Your task to perform on an android device: Do I have any events today? Image 0: 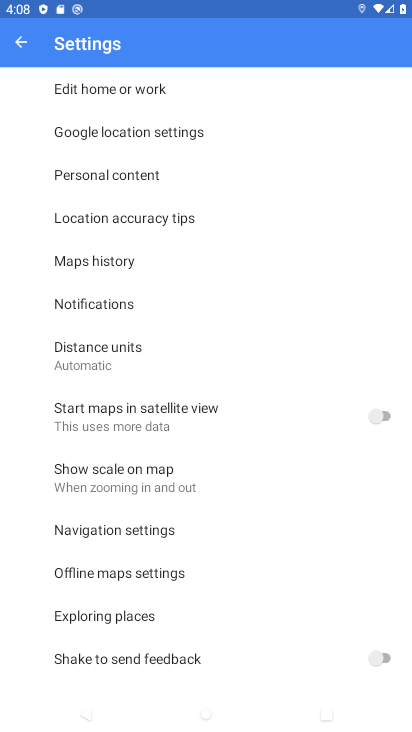
Step 0: press home button
Your task to perform on an android device: Do I have any events today? Image 1: 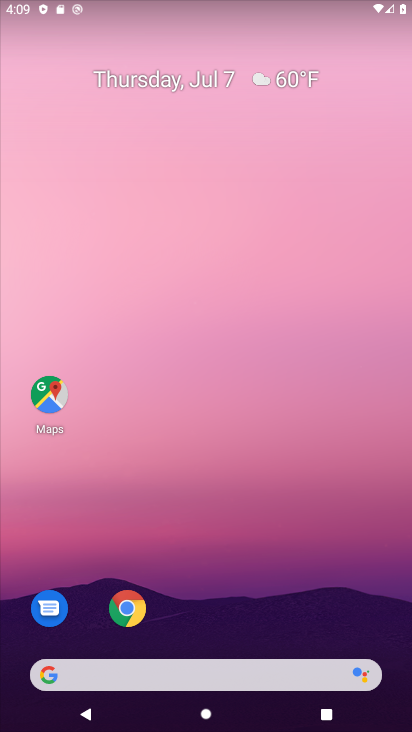
Step 1: drag from (292, 596) to (269, 306)
Your task to perform on an android device: Do I have any events today? Image 2: 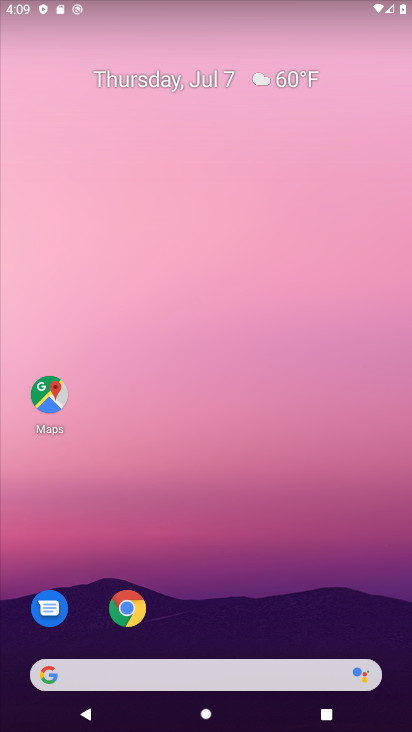
Step 2: drag from (309, 607) to (190, 22)
Your task to perform on an android device: Do I have any events today? Image 3: 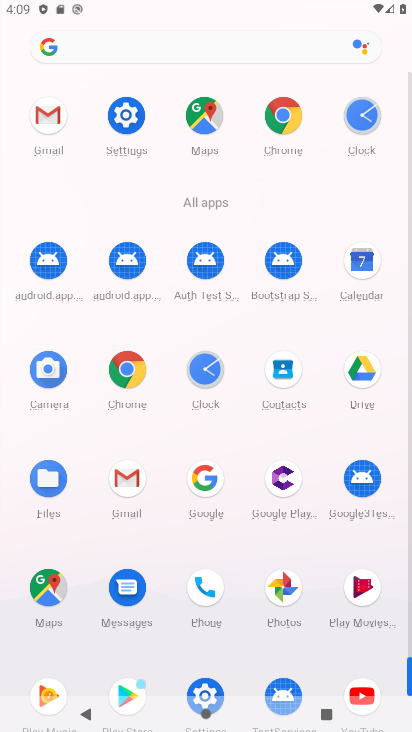
Step 3: click (377, 283)
Your task to perform on an android device: Do I have any events today? Image 4: 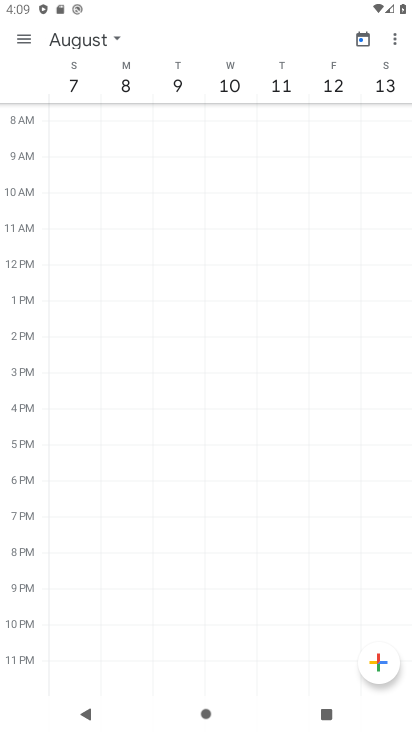
Step 4: drag from (271, 606) to (247, 307)
Your task to perform on an android device: Do I have any events today? Image 5: 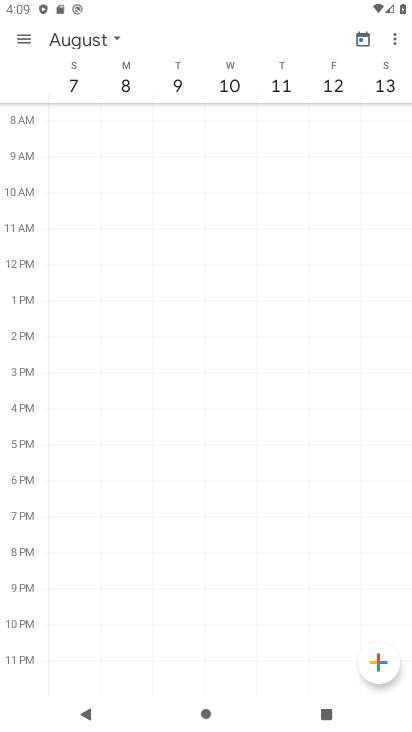
Step 5: click (24, 48)
Your task to perform on an android device: Do I have any events today? Image 6: 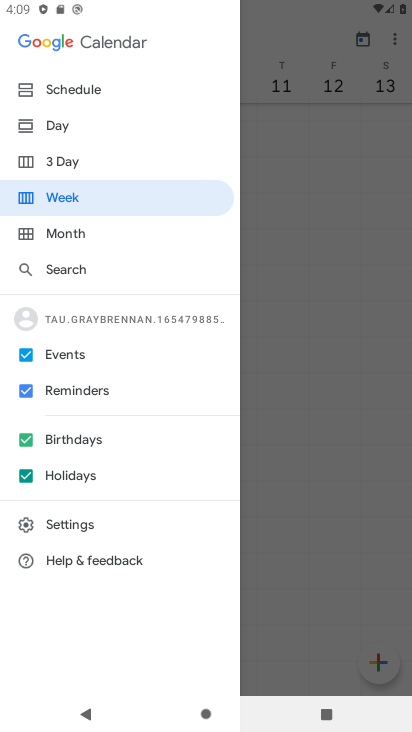
Step 6: click (99, 130)
Your task to perform on an android device: Do I have any events today? Image 7: 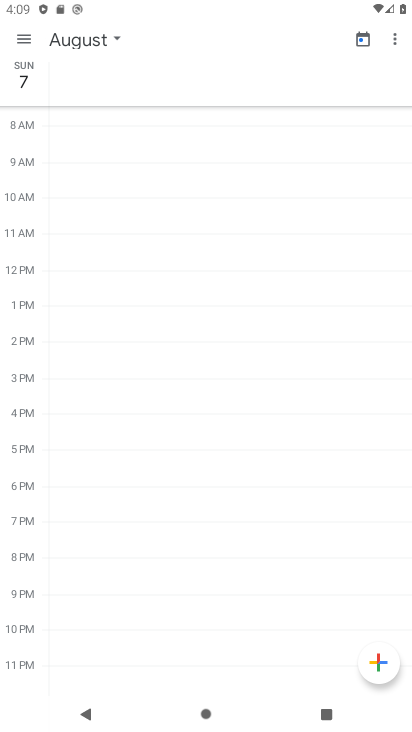
Step 7: task complete